Your task to perform on an android device: turn off location Image 0: 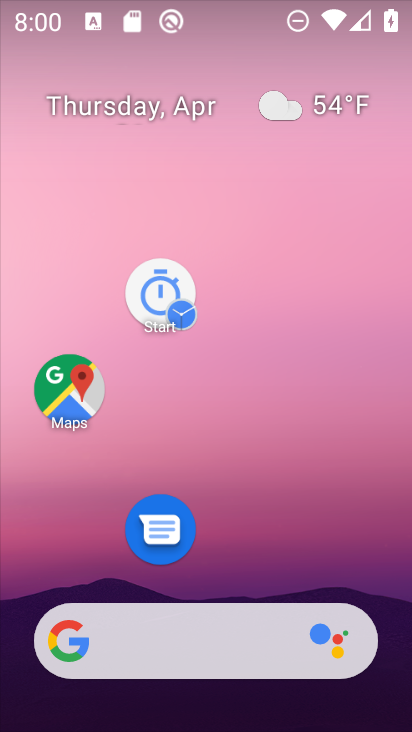
Step 0: drag from (259, 568) to (133, 284)
Your task to perform on an android device: turn off location Image 1: 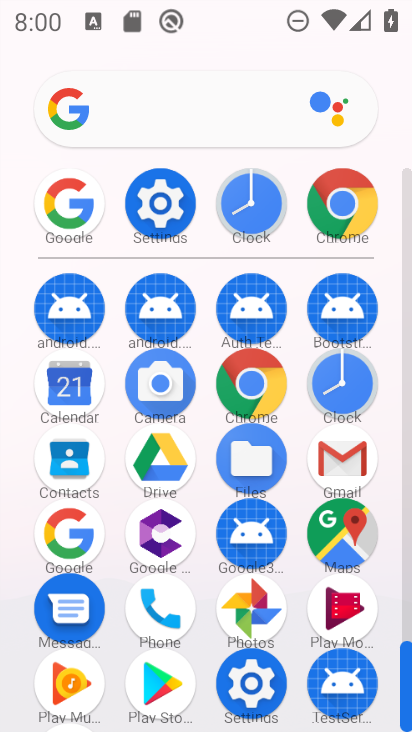
Step 1: click (178, 199)
Your task to perform on an android device: turn off location Image 2: 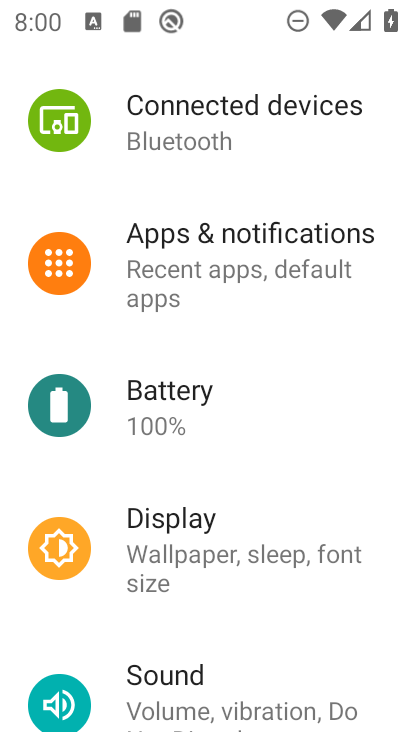
Step 2: drag from (214, 601) to (178, 401)
Your task to perform on an android device: turn off location Image 3: 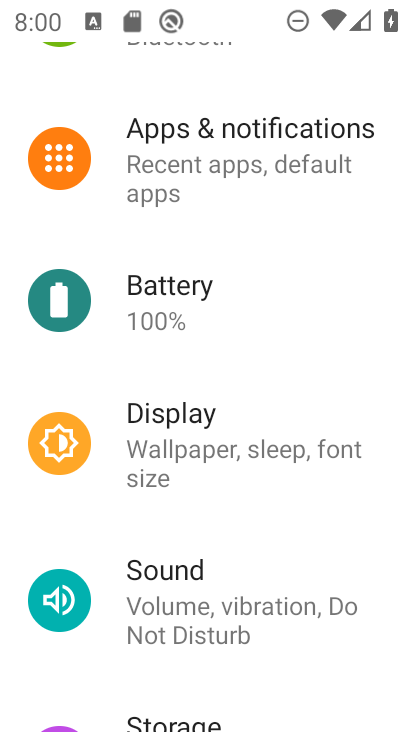
Step 3: drag from (258, 625) to (178, 349)
Your task to perform on an android device: turn off location Image 4: 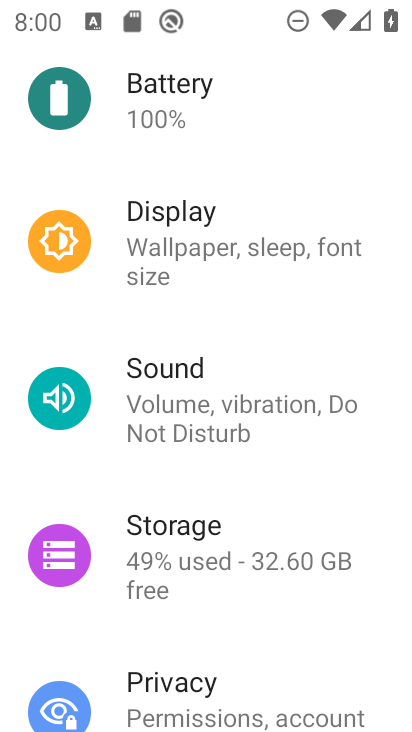
Step 4: drag from (243, 702) to (150, 367)
Your task to perform on an android device: turn off location Image 5: 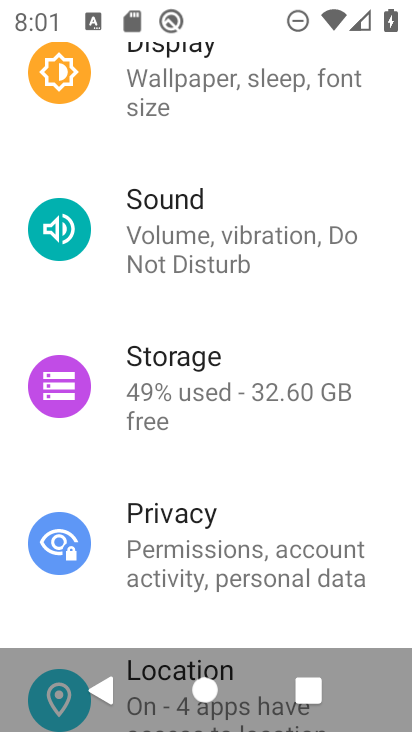
Step 5: drag from (207, 575) to (149, 323)
Your task to perform on an android device: turn off location Image 6: 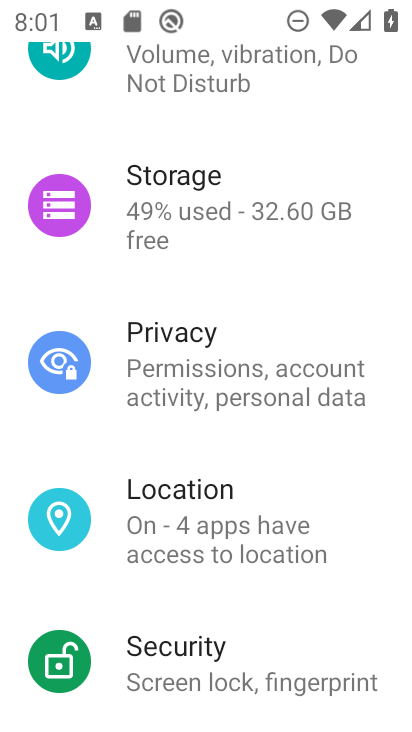
Step 6: click (159, 545)
Your task to perform on an android device: turn off location Image 7: 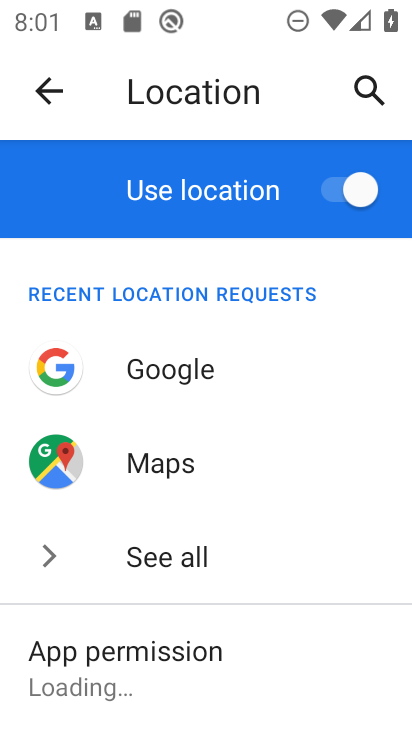
Step 7: click (323, 186)
Your task to perform on an android device: turn off location Image 8: 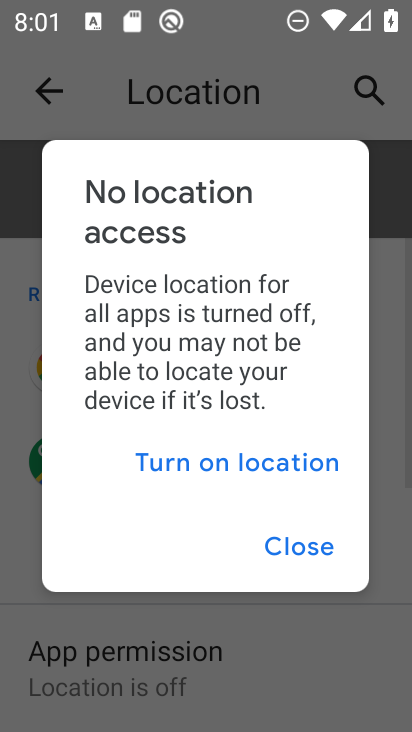
Step 8: task complete